Your task to perform on an android device: Go to eBay Image 0: 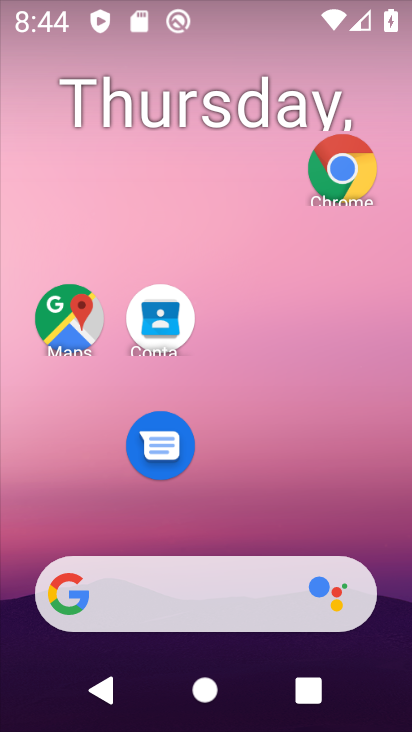
Step 0: drag from (267, 576) to (296, 268)
Your task to perform on an android device: Go to eBay Image 1: 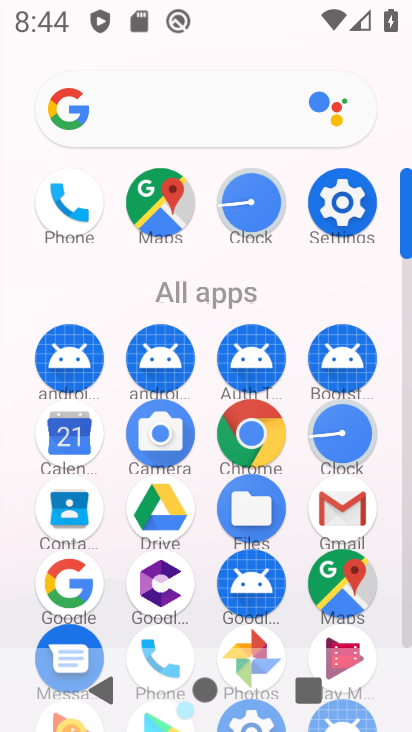
Step 1: click (244, 422)
Your task to perform on an android device: Go to eBay Image 2: 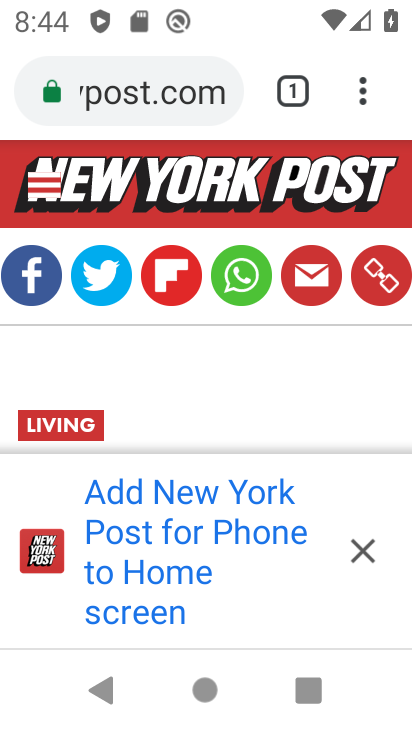
Step 2: click (356, 551)
Your task to perform on an android device: Go to eBay Image 3: 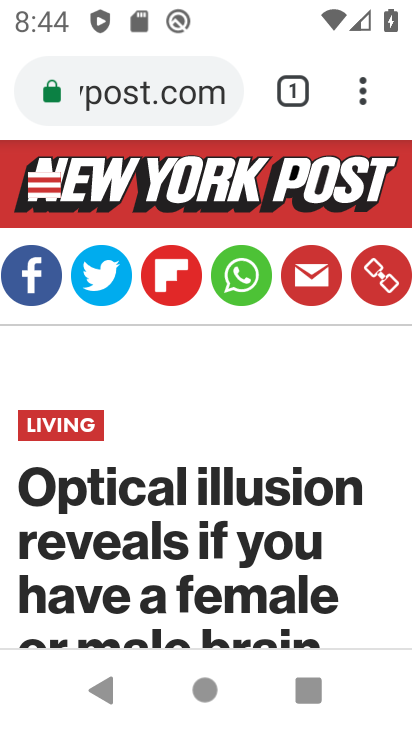
Step 3: click (291, 95)
Your task to perform on an android device: Go to eBay Image 4: 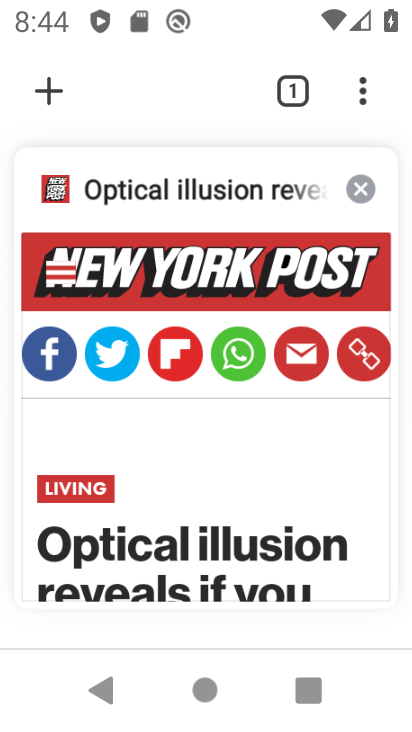
Step 4: drag from (48, 50) to (73, 17)
Your task to perform on an android device: Go to eBay Image 5: 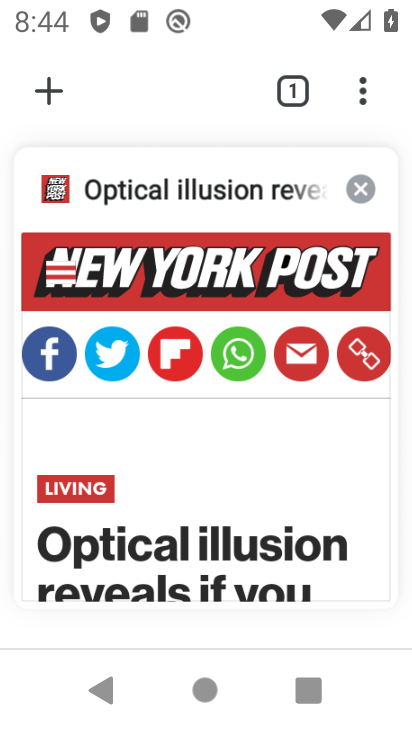
Step 5: click (53, 94)
Your task to perform on an android device: Go to eBay Image 6: 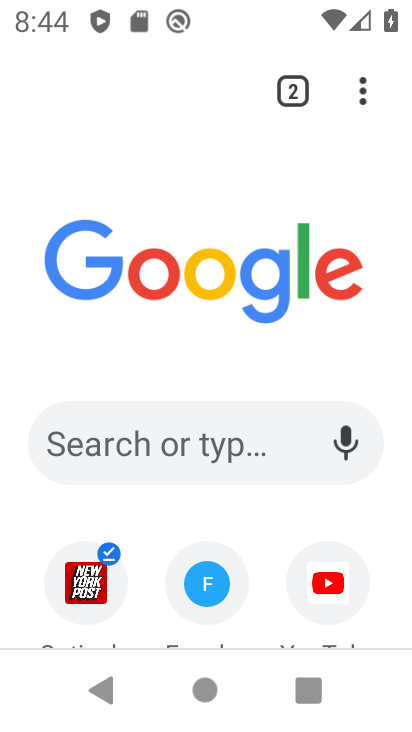
Step 6: drag from (196, 526) to (266, 249)
Your task to perform on an android device: Go to eBay Image 7: 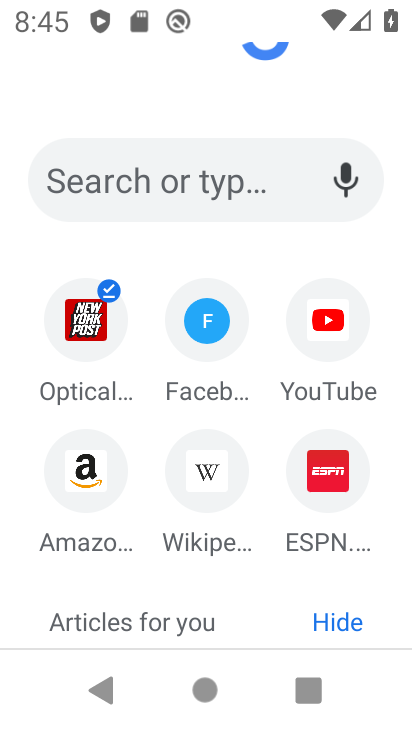
Step 7: click (180, 207)
Your task to perform on an android device: Go to eBay Image 8: 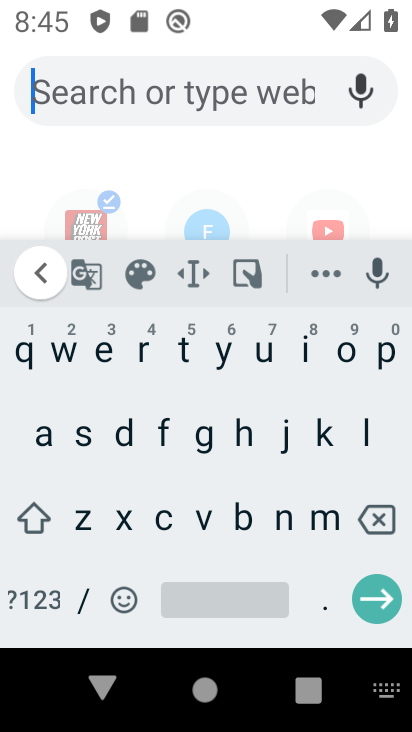
Step 8: click (95, 361)
Your task to perform on an android device: Go to eBay Image 9: 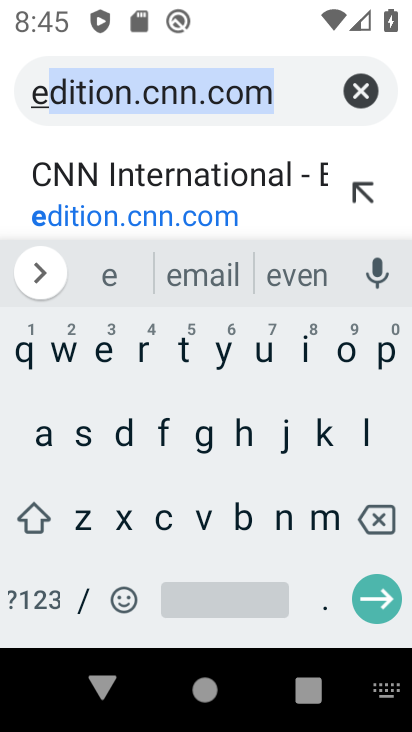
Step 9: click (238, 517)
Your task to perform on an android device: Go to eBay Image 10: 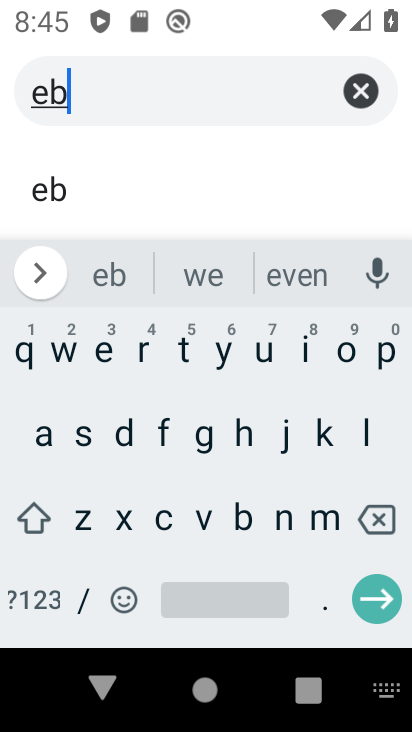
Step 10: click (47, 435)
Your task to perform on an android device: Go to eBay Image 11: 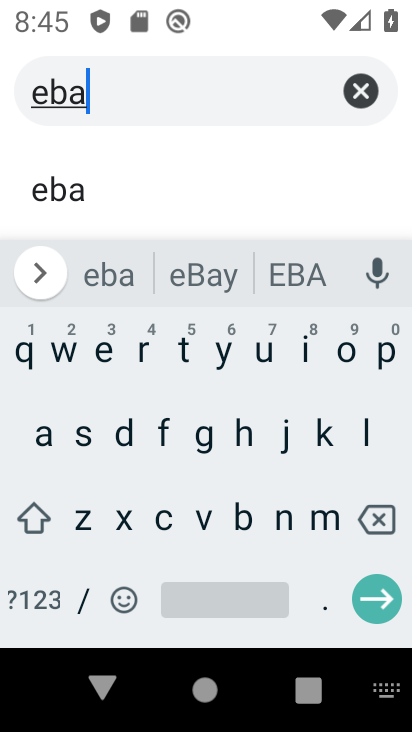
Step 11: click (219, 363)
Your task to perform on an android device: Go to eBay Image 12: 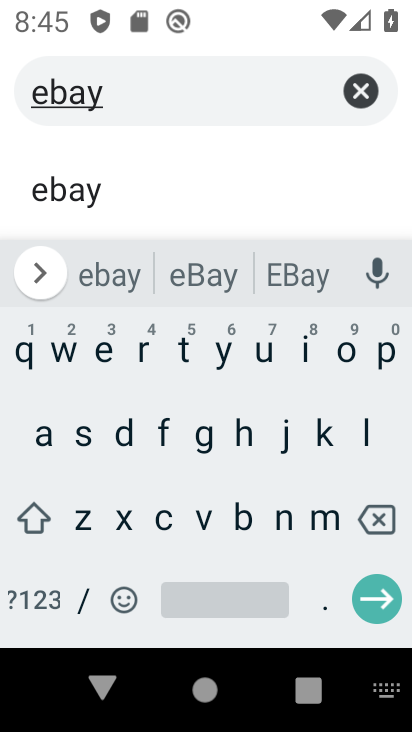
Step 12: click (380, 613)
Your task to perform on an android device: Go to eBay Image 13: 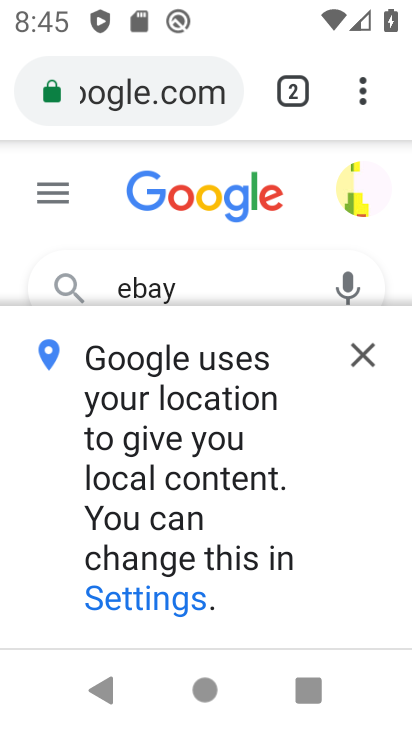
Step 13: click (373, 352)
Your task to perform on an android device: Go to eBay Image 14: 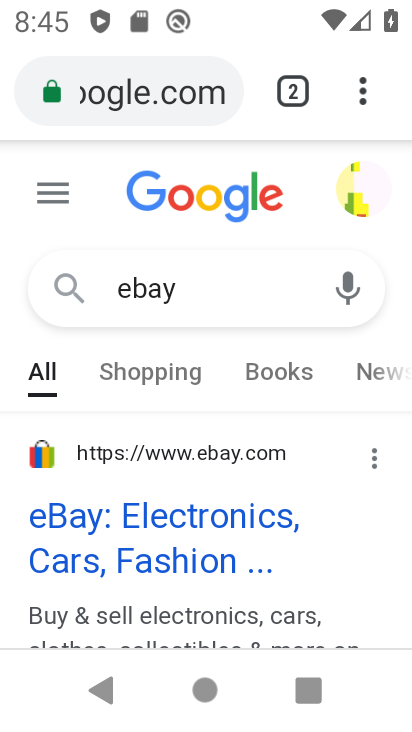
Step 14: click (89, 542)
Your task to perform on an android device: Go to eBay Image 15: 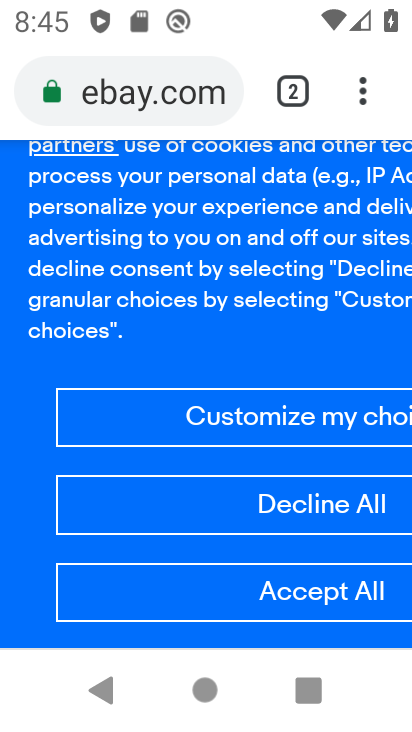
Step 15: task complete